Your task to perform on an android device: turn on wifi Image 0: 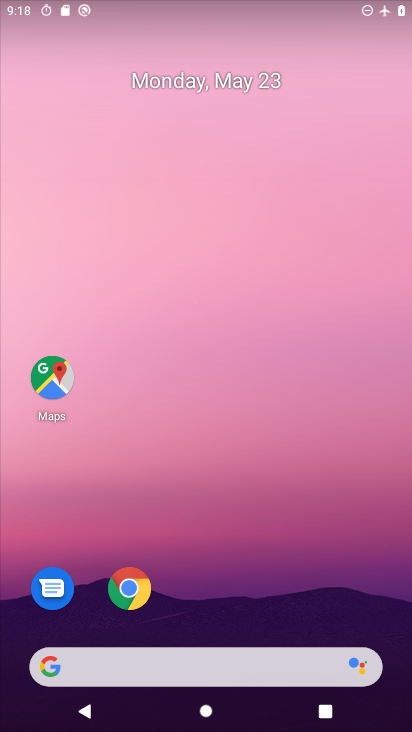
Step 0: drag from (398, 678) to (334, 194)
Your task to perform on an android device: turn on wifi Image 1: 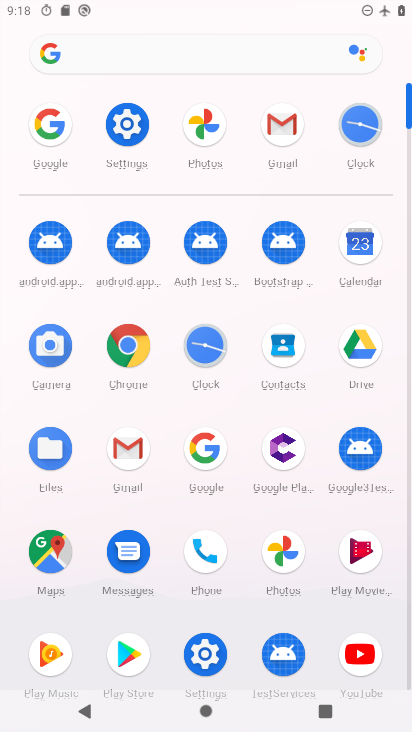
Step 1: click (128, 128)
Your task to perform on an android device: turn on wifi Image 2: 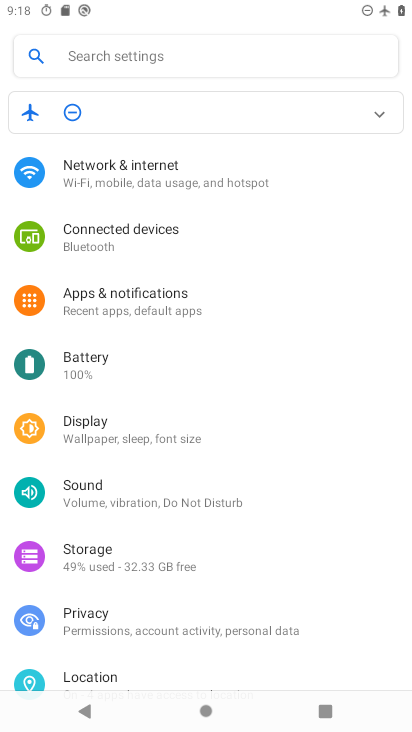
Step 2: click (156, 172)
Your task to perform on an android device: turn on wifi Image 3: 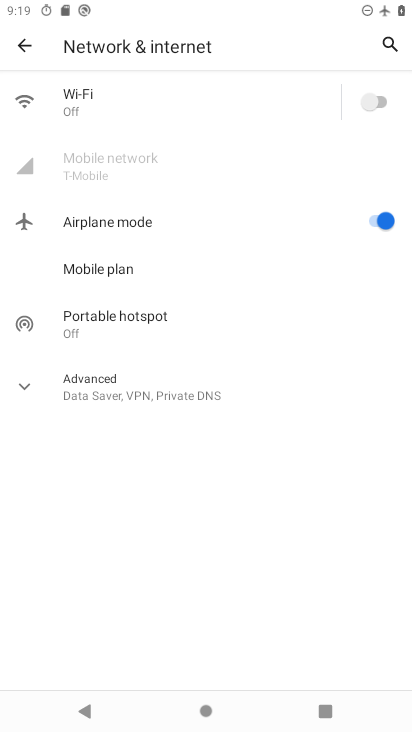
Step 3: click (381, 99)
Your task to perform on an android device: turn on wifi Image 4: 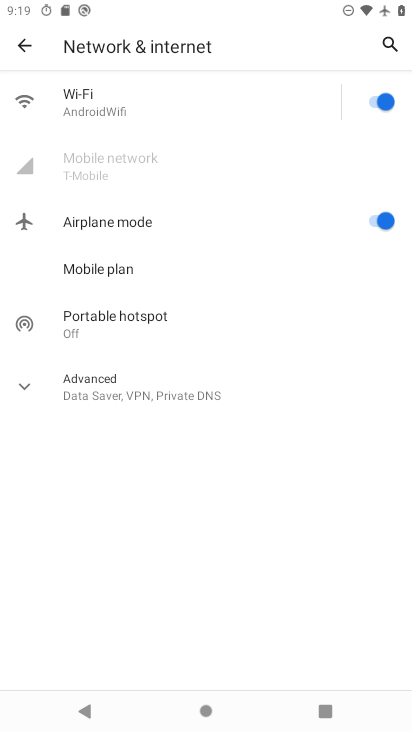
Step 4: click (368, 221)
Your task to perform on an android device: turn on wifi Image 5: 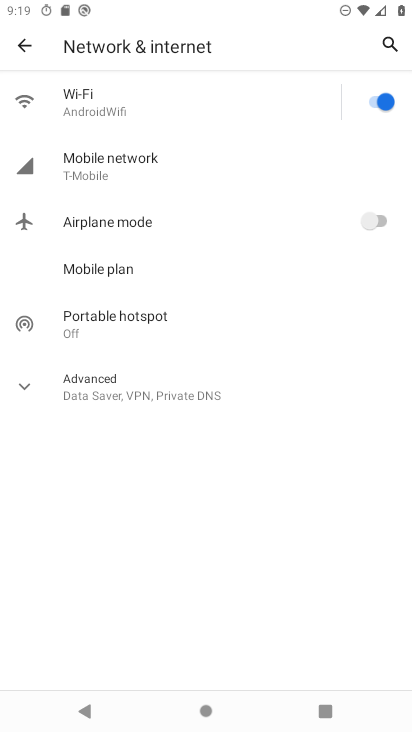
Step 5: click (384, 218)
Your task to perform on an android device: turn on wifi Image 6: 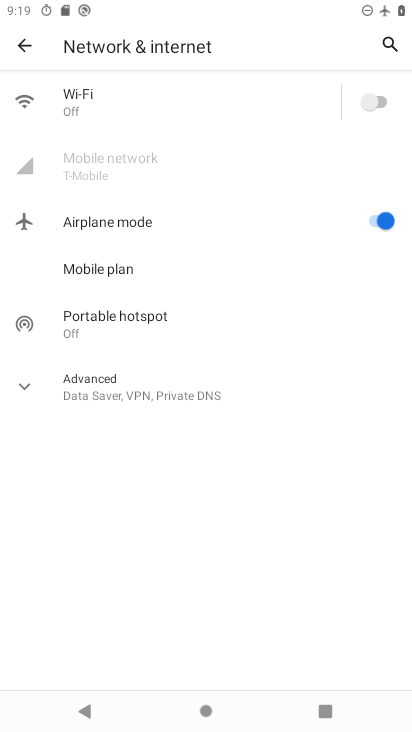
Step 6: click (377, 218)
Your task to perform on an android device: turn on wifi Image 7: 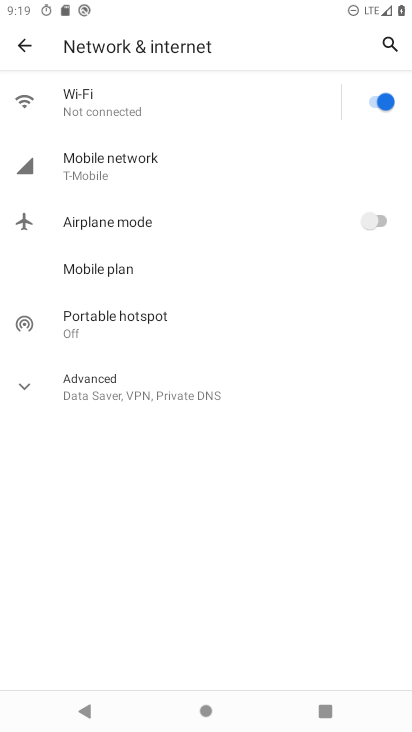
Step 7: task complete